Your task to perform on an android device: add a contact in the contacts app Image 0: 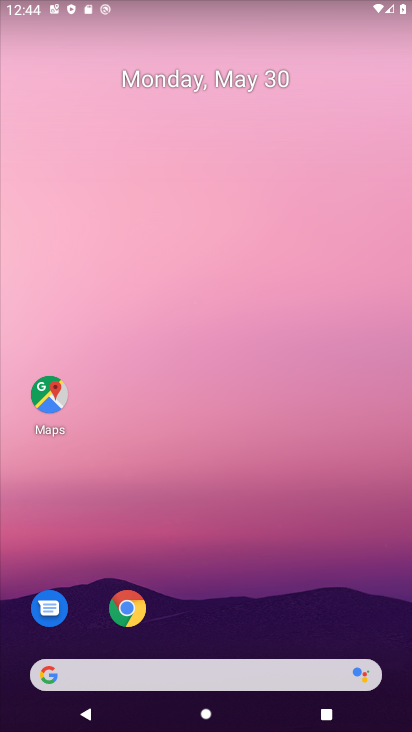
Step 0: drag from (254, 574) to (228, 22)
Your task to perform on an android device: add a contact in the contacts app Image 1: 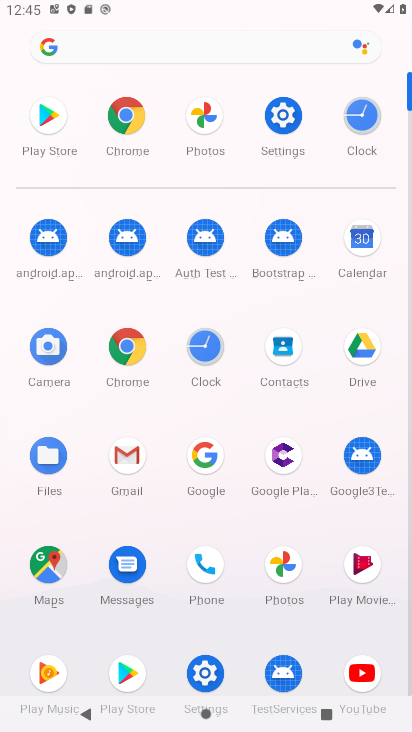
Step 1: click (284, 344)
Your task to perform on an android device: add a contact in the contacts app Image 2: 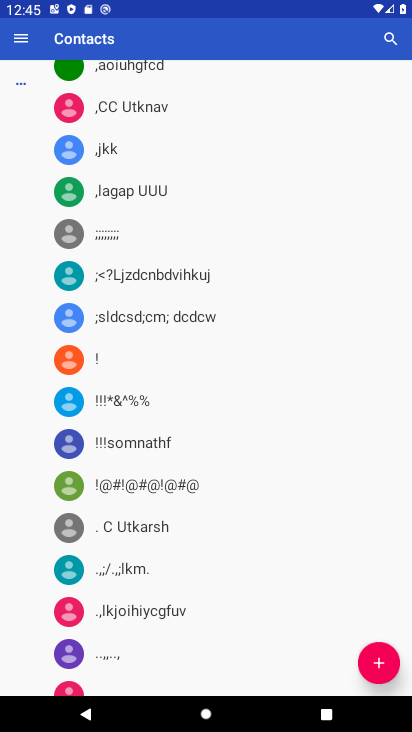
Step 2: click (367, 656)
Your task to perform on an android device: add a contact in the contacts app Image 3: 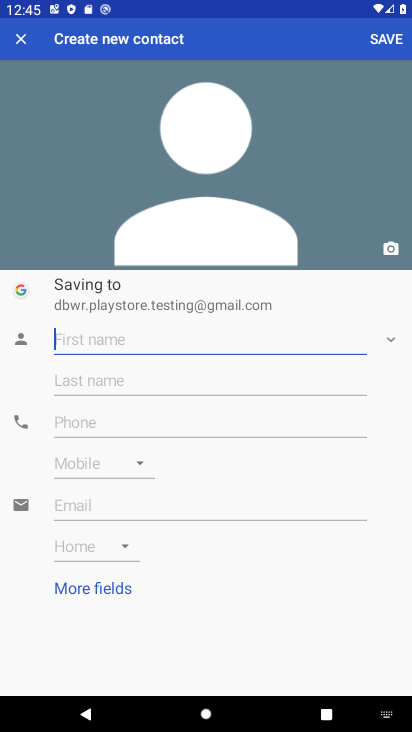
Step 3: type "tghyhdf"
Your task to perform on an android device: add a contact in the contacts app Image 4: 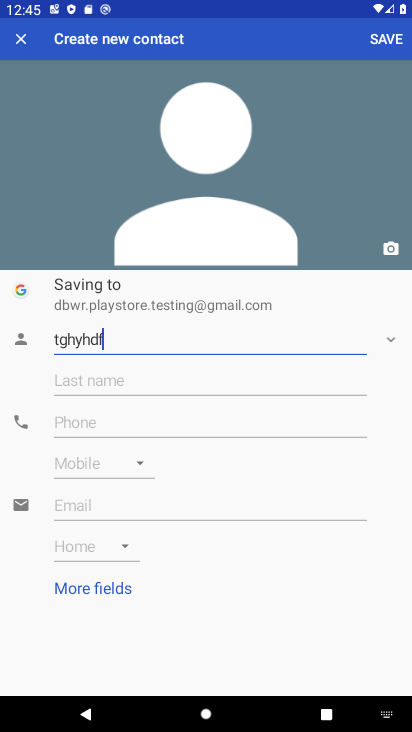
Step 4: click (190, 416)
Your task to perform on an android device: add a contact in the contacts app Image 5: 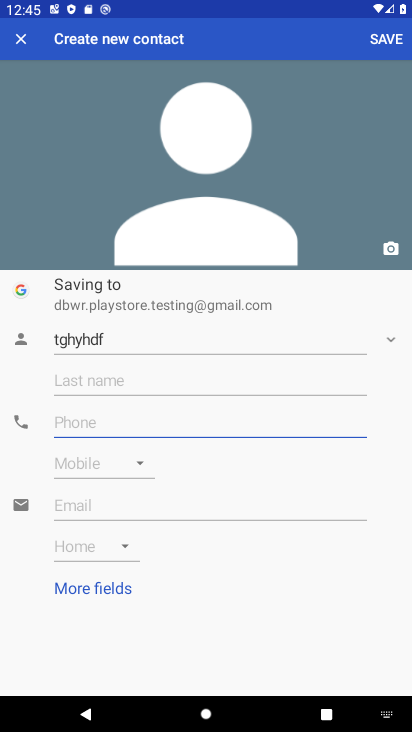
Step 5: type "7576908"
Your task to perform on an android device: add a contact in the contacts app Image 6: 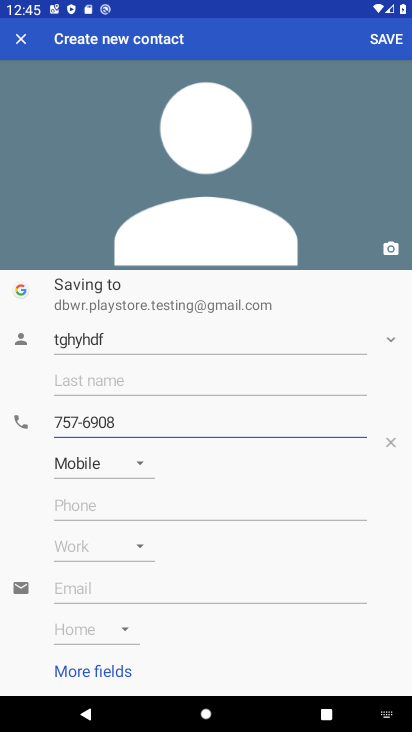
Step 6: click (392, 38)
Your task to perform on an android device: add a contact in the contacts app Image 7: 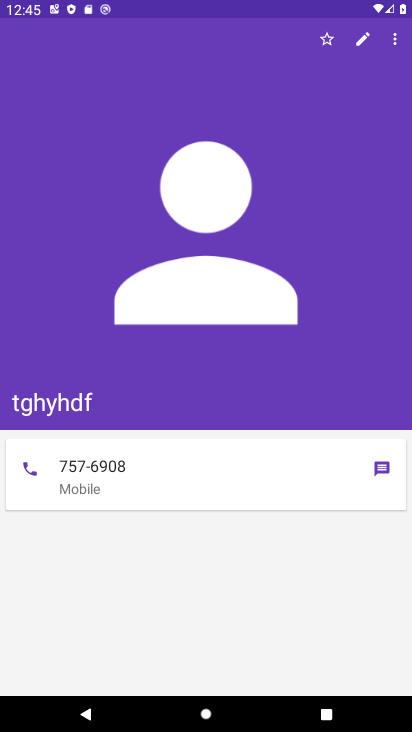
Step 7: task complete